Your task to perform on an android device: Show me recent news Image 0: 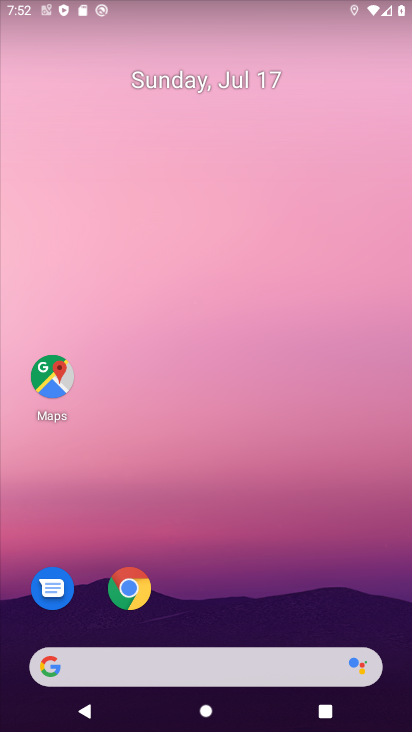
Step 0: drag from (215, 642) to (299, 176)
Your task to perform on an android device: Show me recent news Image 1: 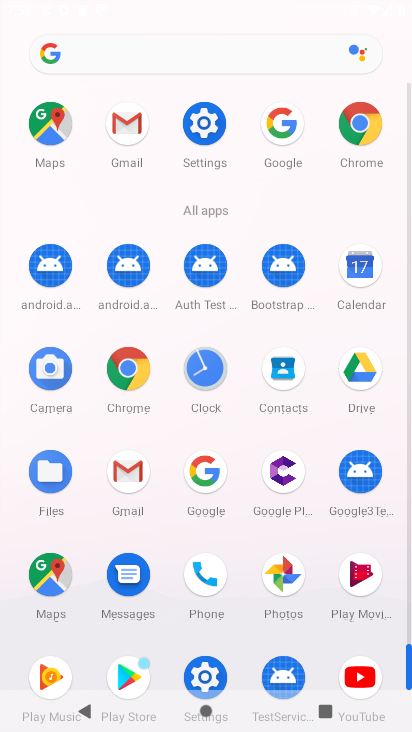
Step 1: drag from (251, 463) to (267, 298)
Your task to perform on an android device: Show me recent news Image 2: 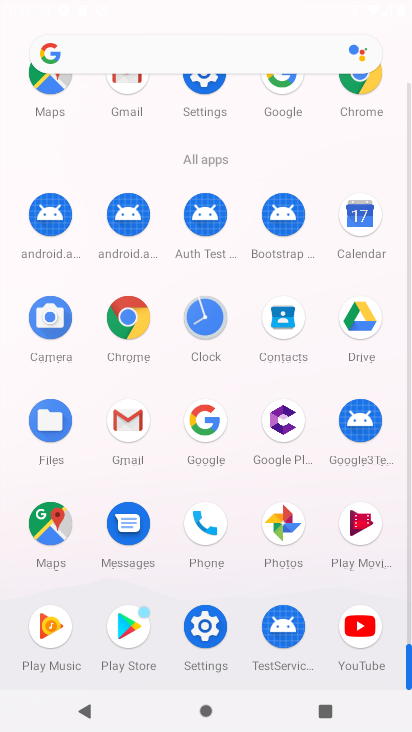
Step 2: click (209, 438)
Your task to perform on an android device: Show me recent news Image 3: 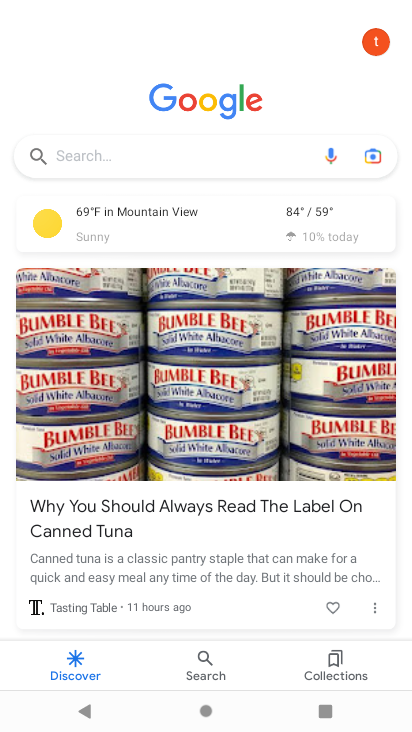
Step 3: click (230, 167)
Your task to perform on an android device: Show me recent news Image 4: 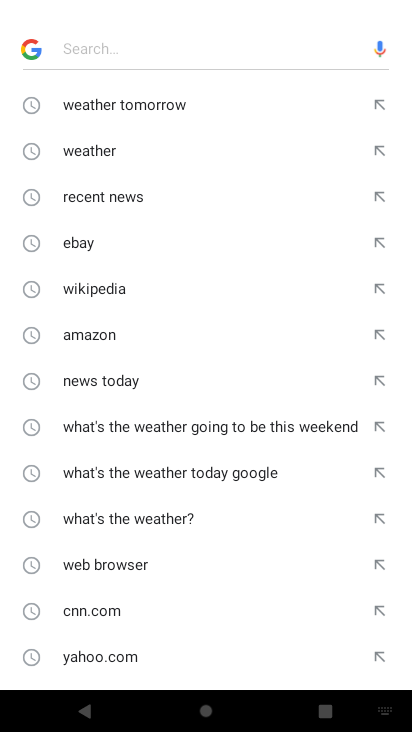
Step 4: click (161, 200)
Your task to perform on an android device: Show me recent news Image 5: 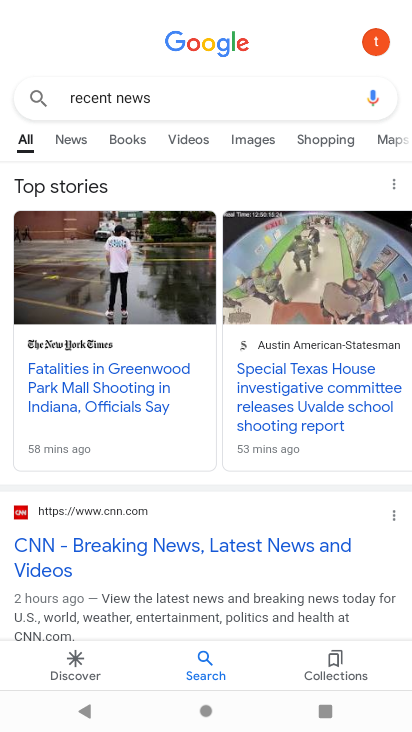
Step 5: click (71, 140)
Your task to perform on an android device: Show me recent news Image 6: 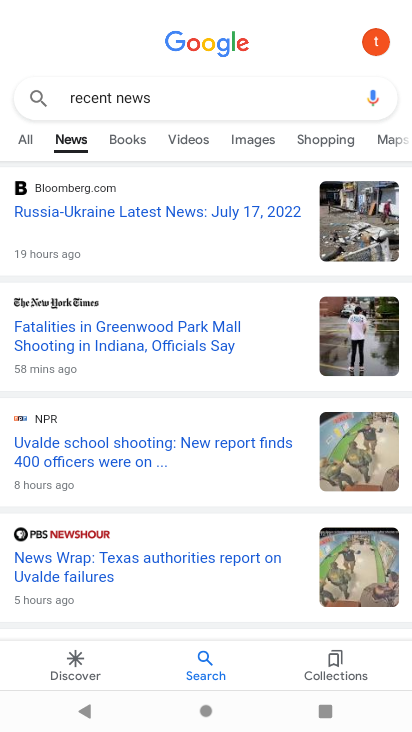
Step 6: task complete